Your task to perform on an android device: Search for bose quietcomfort 35 on walmart, select the first entry, and add it to the cart. Image 0: 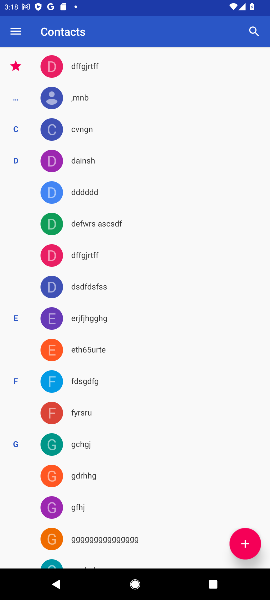
Step 0: press home button
Your task to perform on an android device: Search for bose quietcomfort 35 on walmart, select the first entry, and add it to the cart. Image 1: 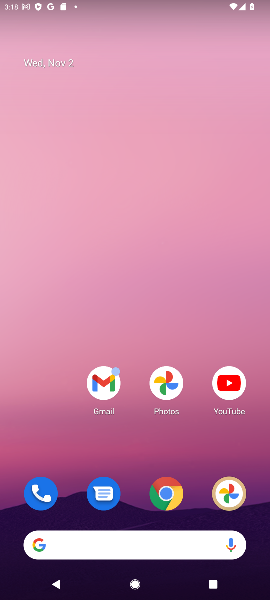
Step 1: drag from (71, 518) to (84, 144)
Your task to perform on an android device: Search for bose quietcomfort 35 on walmart, select the first entry, and add it to the cart. Image 2: 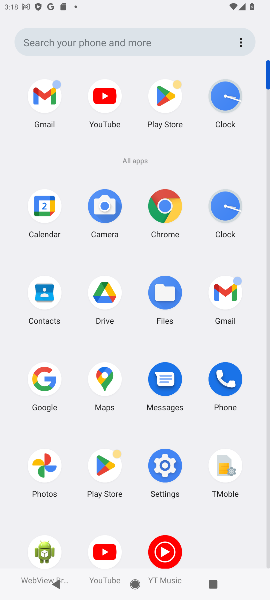
Step 2: click (37, 380)
Your task to perform on an android device: Search for bose quietcomfort 35 on walmart, select the first entry, and add it to the cart. Image 3: 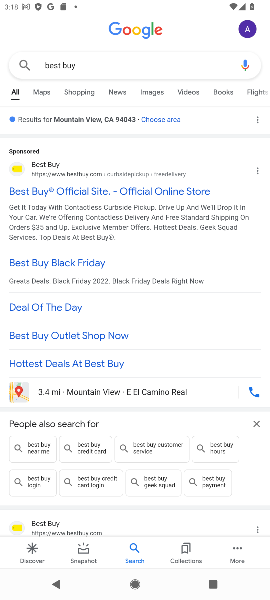
Step 3: click (115, 60)
Your task to perform on an android device: Search for bose quietcomfort 35 on walmart, select the first entry, and add it to the cart. Image 4: 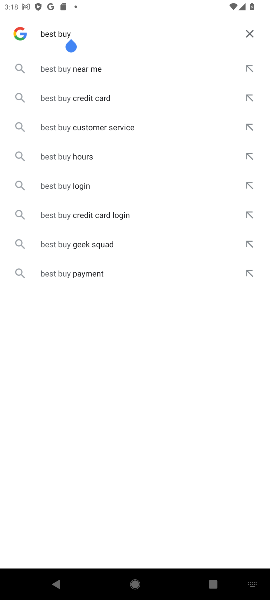
Step 4: click (251, 31)
Your task to perform on an android device: Search for bose quietcomfort 35 on walmart, select the first entry, and add it to the cart. Image 5: 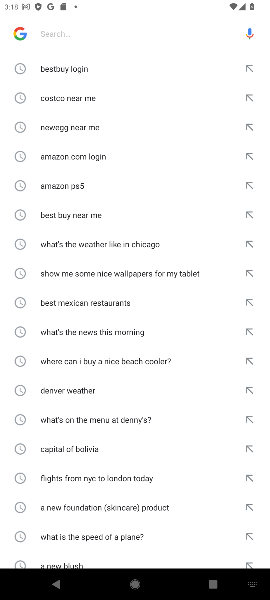
Step 5: click (63, 25)
Your task to perform on an android device: Search for bose quietcomfort 35 on walmart, select the first entry, and add it to the cart. Image 6: 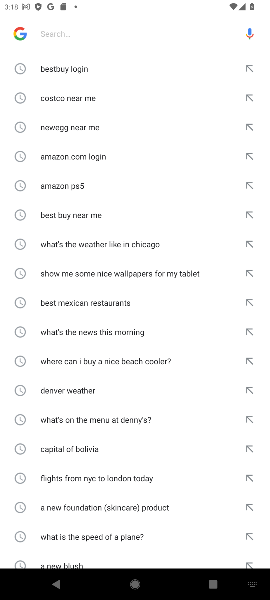
Step 6: type "walmart "
Your task to perform on an android device: Search for bose quietcomfort 35 on walmart, select the first entry, and add it to the cart. Image 7: 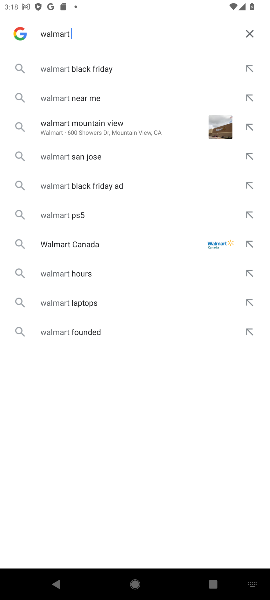
Step 7: click (58, 93)
Your task to perform on an android device: Search for bose quietcomfort 35 on walmart, select the first entry, and add it to the cart. Image 8: 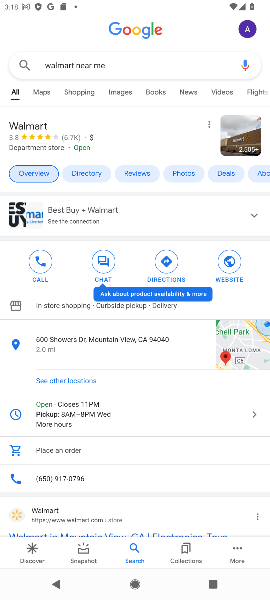
Step 8: click (14, 512)
Your task to perform on an android device: Search for bose quietcomfort 35 on walmart, select the first entry, and add it to the cart. Image 9: 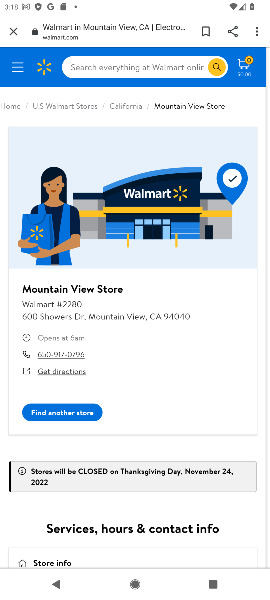
Step 9: click (131, 58)
Your task to perform on an android device: Search for bose quietcomfort 35 on walmart, select the first entry, and add it to the cart. Image 10: 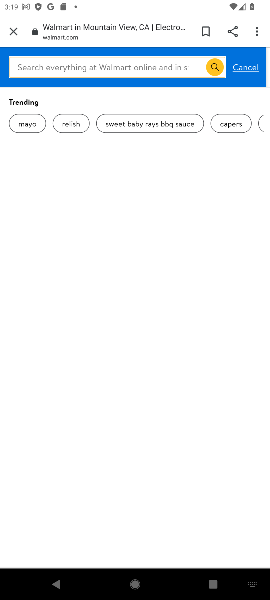
Step 10: click (87, 63)
Your task to perform on an android device: Search for bose quietcomfort 35 on walmart, select the first entry, and add it to the cart. Image 11: 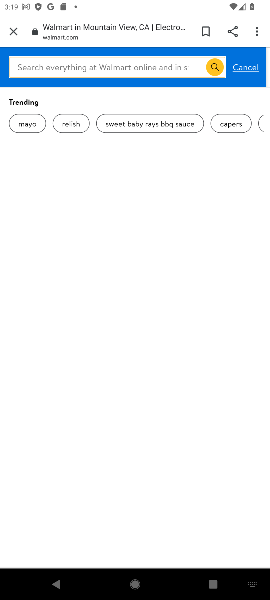
Step 11: type " bose quietcomfort 35 "
Your task to perform on an android device: Search for bose quietcomfort 35 on walmart, select the first entry, and add it to the cart. Image 12: 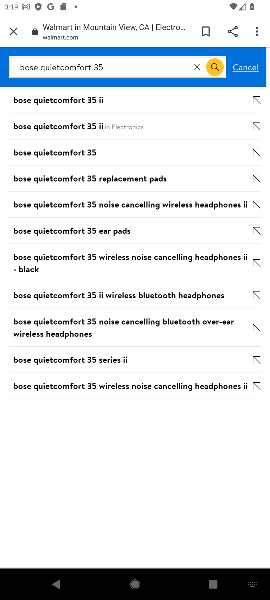
Step 12: click (58, 100)
Your task to perform on an android device: Search for bose quietcomfort 35 on walmart, select the first entry, and add it to the cart. Image 13: 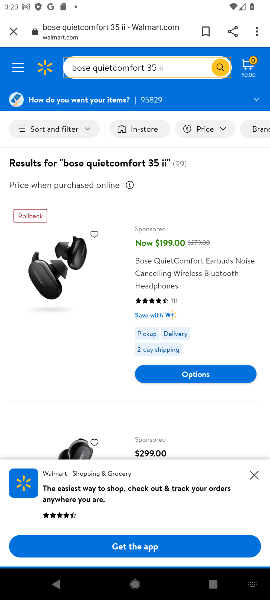
Step 13: click (252, 478)
Your task to perform on an android device: Search for bose quietcomfort 35 on walmart, select the first entry, and add it to the cart. Image 14: 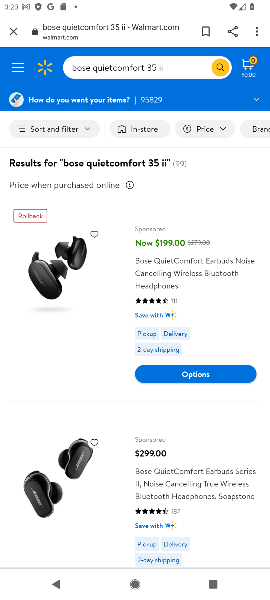
Step 14: drag from (152, 502) to (138, 191)
Your task to perform on an android device: Search for bose quietcomfort 35 on walmart, select the first entry, and add it to the cart. Image 15: 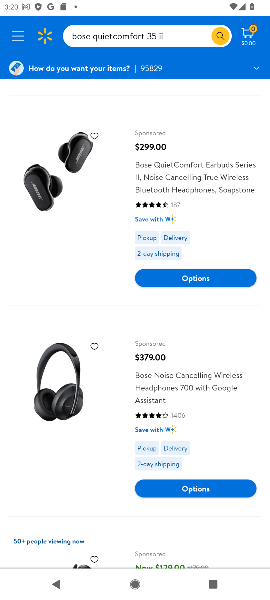
Step 15: drag from (61, 188) to (64, 463)
Your task to perform on an android device: Search for bose quietcomfort 35 on walmart, select the first entry, and add it to the cart. Image 16: 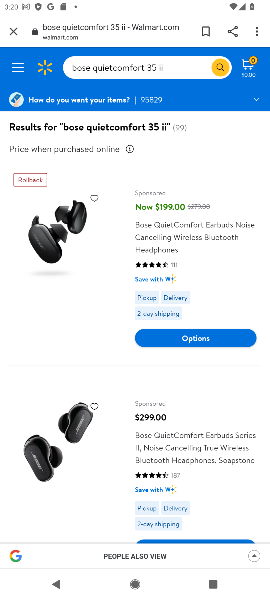
Step 16: drag from (136, 201) to (133, 441)
Your task to perform on an android device: Search for bose quietcomfort 35 on walmart, select the first entry, and add it to the cart. Image 17: 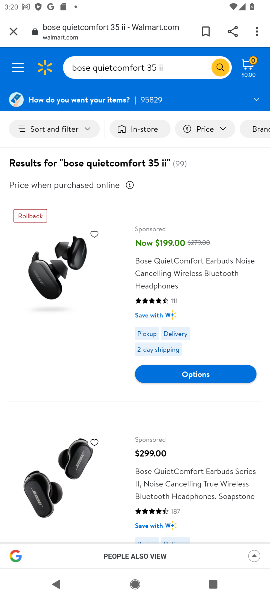
Step 17: click (141, 249)
Your task to perform on an android device: Search for bose quietcomfort 35 on walmart, select the first entry, and add it to the cart. Image 18: 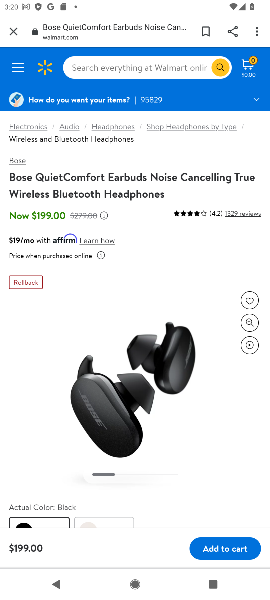
Step 18: click (199, 547)
Your task to perform on an android device: Search for bose quietcomfort 35 on walmart, select the first entry, and add it to the cart. Image 19: 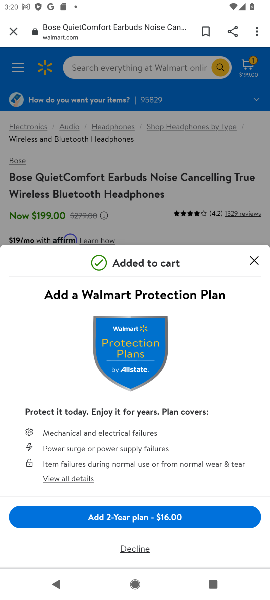
Step 19: click (260, 262)
Your task to perform on an android device: Search for bose quietcomfort 35 on walmart, select the first entry, and add it to the cart. Image 20: 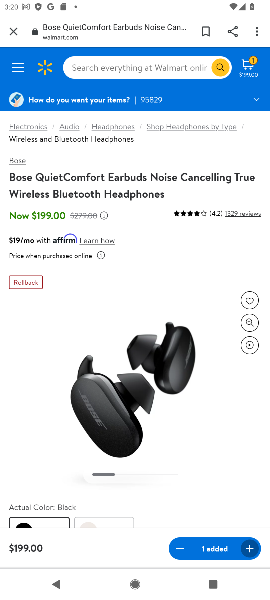
Step 20: task complete